Your task to perform on an android device: Go to Google maps Image 0: 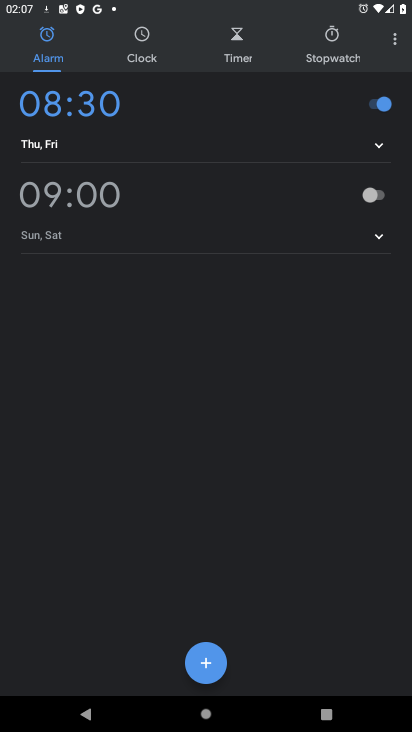
Step 0: press home button
Your task to perform on an android device: Go to Google maps Image 1: 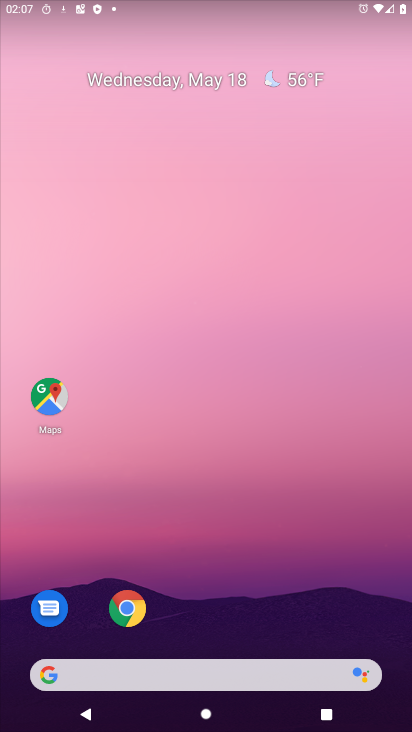
Step 1: drag from (229, 695) to (142, 255)
Your task to perform on an android device: Go to Google maps Image 2: 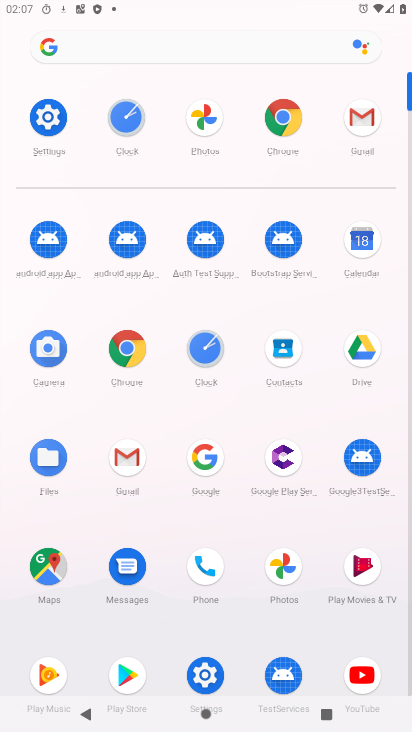
Step 2: click (62, 564)
Your task to perform on an android device: Go to Google maps Image 3: 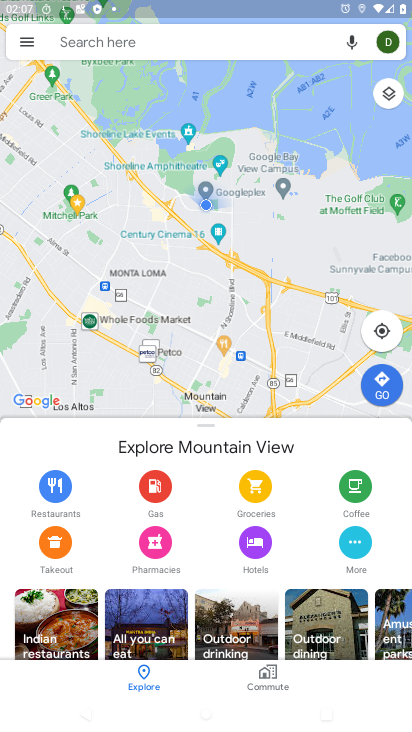
Step 3: click (152, 290)
Your task to perform on an android device: Go to Google maps Image 4: 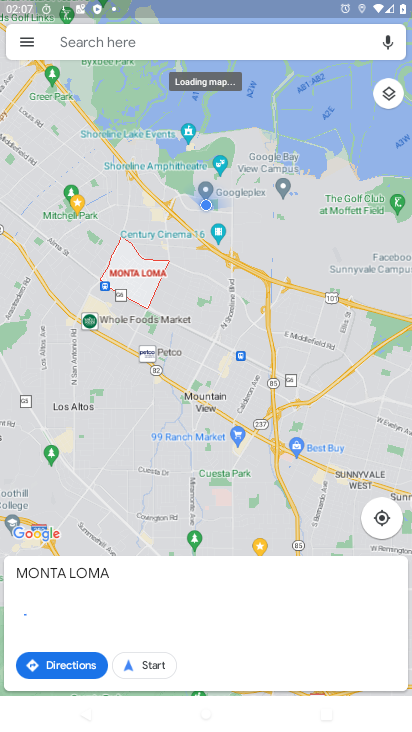
Step 4: task complete